Your task to perform on an android device: Open calendar and show me the third week of next month Image 0: 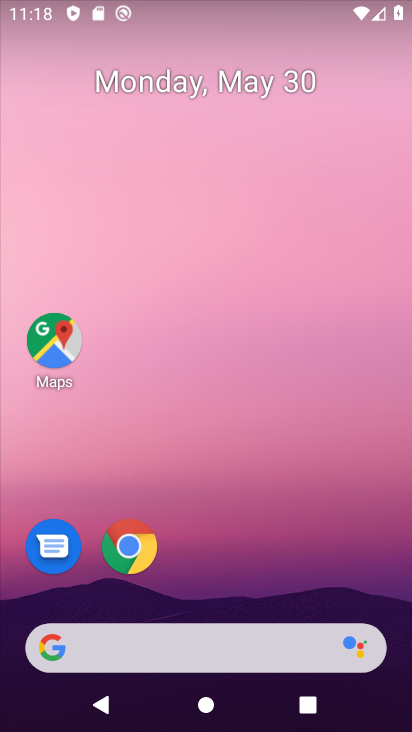
Step 0: drag from (245, 556) to (155, 185)
Your task to perform on an android device: Open calendar and show me the third week of next month Image 1: 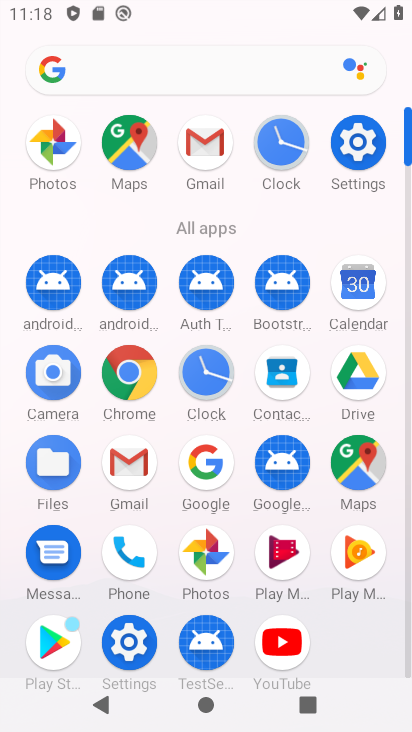
Step 1: click (356, 285)
Your task to perform on an android device: Open calendar and show me the third week of next month Image 2: 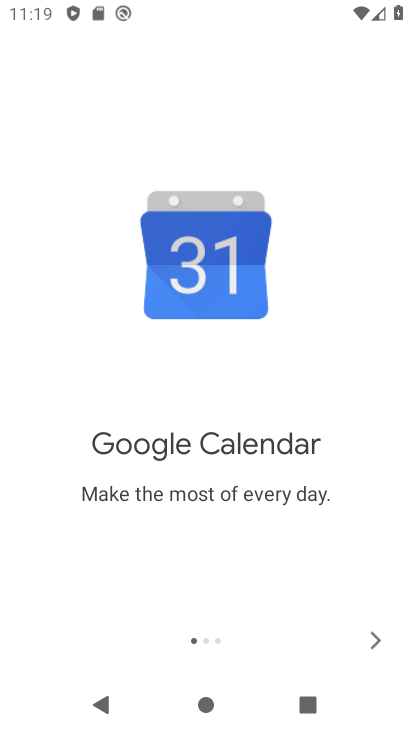
Step 2: click (379, 639)
Your task to perform on an android device: Open calendar and show me the third week of next month Image 3: 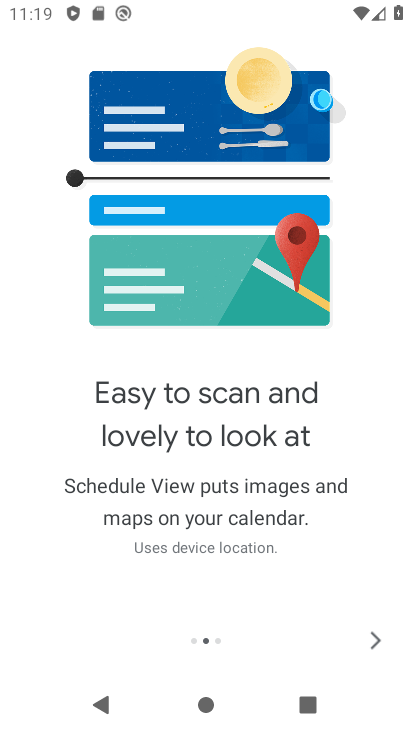
Step 3: click (379, 639)
Your task to perform on an android device: Open calendar and show me the third week of next month Image 4: 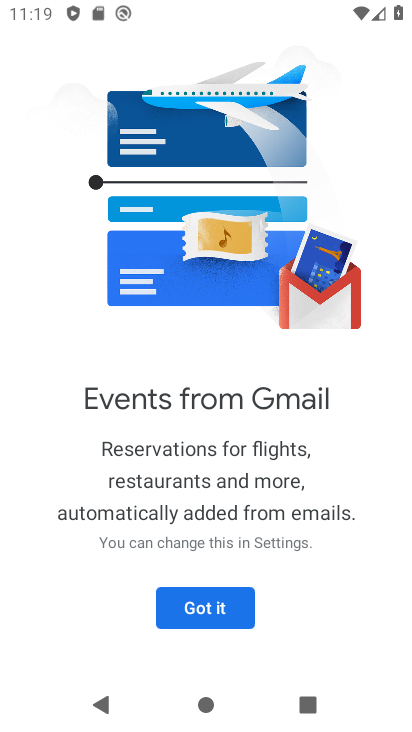
Step 4: click (223, 611)
Your task to perform on an android device: Open calendar and show me the third week of next month Image 5: 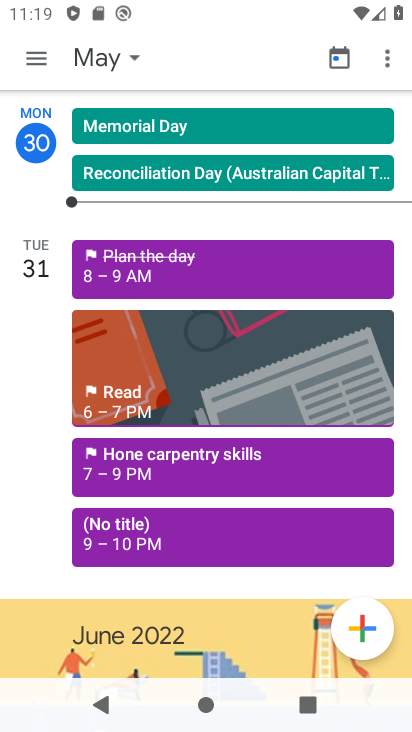
Step 5: click (135, 55)
Your task to perform on an android device: Open calendar and show me the third week of next month Image 6: 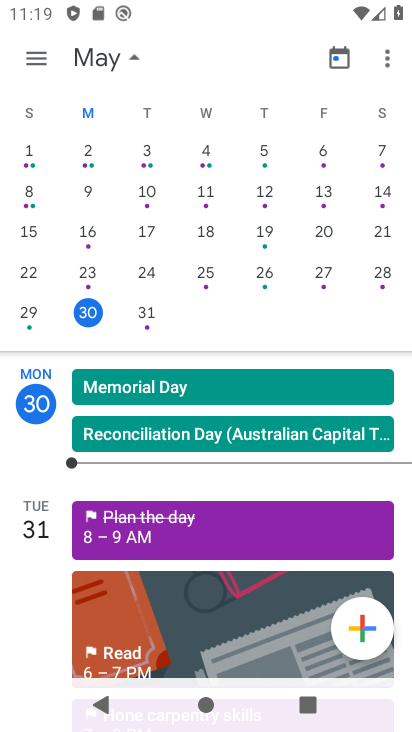
Step 6: drag from (363, 251) to (2, 280)
Your task to perform on an android device: Open calendar and show me the third week of next month Image 7: 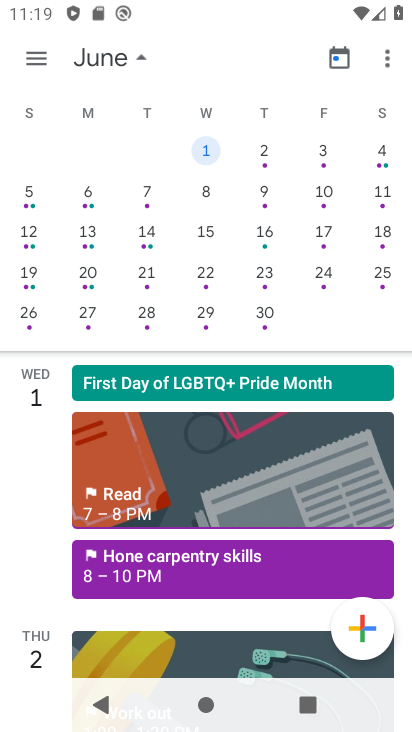
Step 7: click (93, 273)
Your task to perform on an android device: Open calendar and show me the third week of next month Image 8: 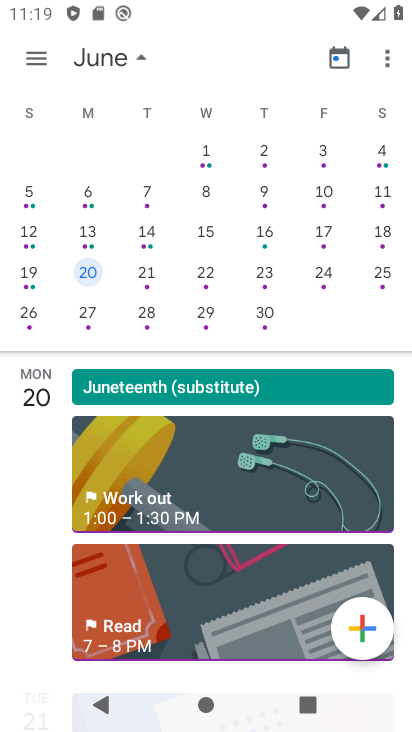
Step 8: click (43, 67)
Your task to perform on an android device: Open calendar and show me the third week of next month Image 9: 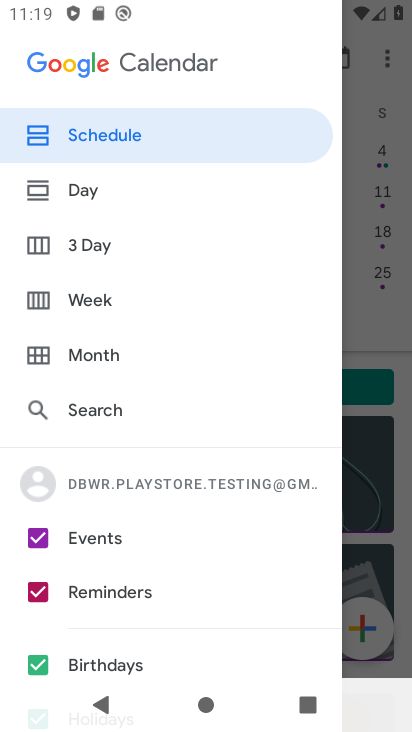
Step 9: click (84, 296)
Your task to perform on an android device: Open calendar and show me the third week of next month Image 10: 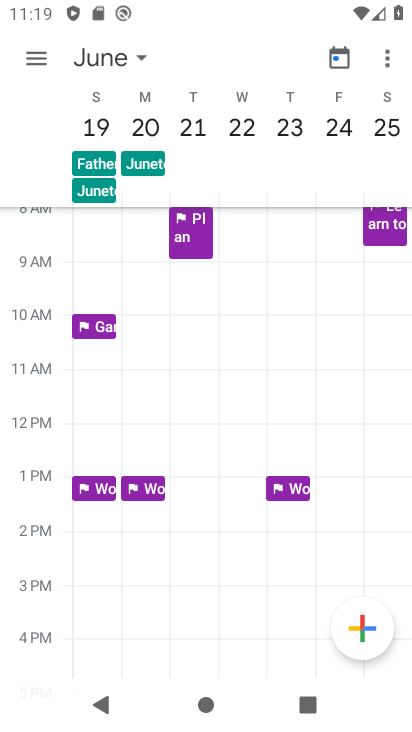
Step 10: task complete